Your task to perform on an android device: open device folders in google photos Image 0: 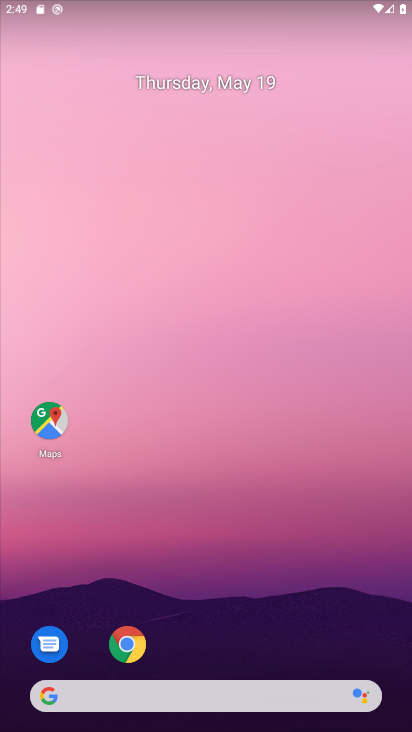
Step 0: drag from (288, 617) to (362, 282)
Your task to perform on an android device: open device folders in google photos Image 1: 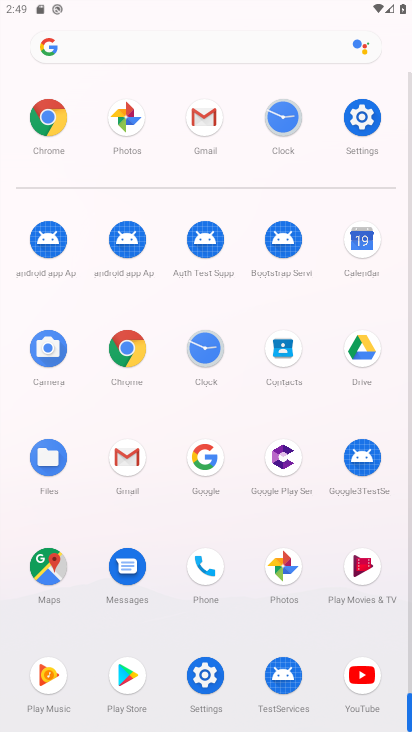
Step 1: click (283, 558)
Your task to perform on an android device: open device folders in google photos Image 2: 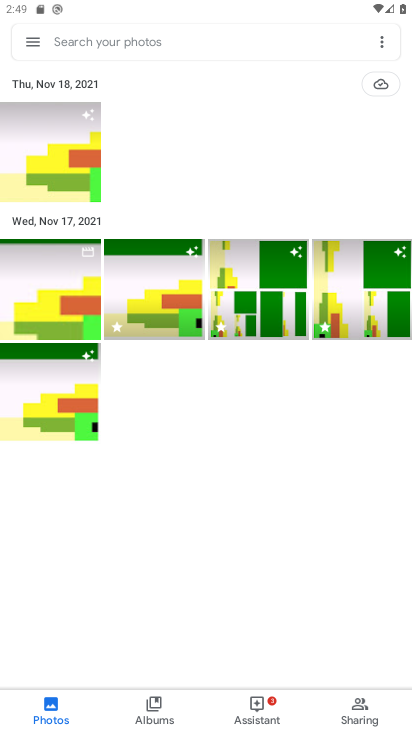
Step 2: task complete